Your task to perform on an android device: Do I have any events today? Image 0: 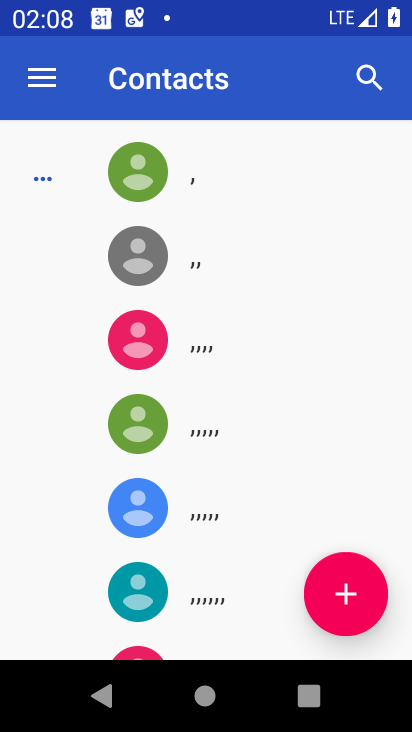
Step 0: press home button
Your task to perform on an android device: Do I have any events today? Image 1: 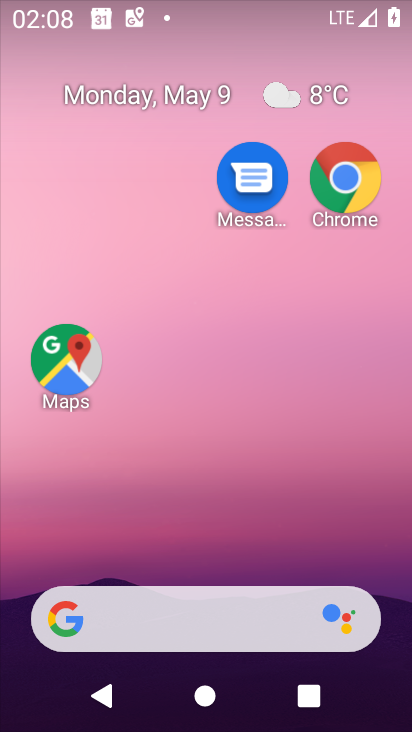
Step 1: drag from (173, 536) to (189, 42)
Your task to perform on an android device: Do I have any events today? Image 2: 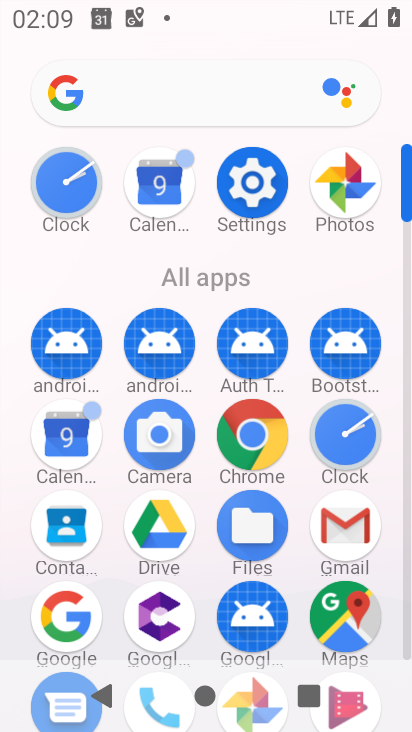
Step 2: click (61, 430)
Your task to perform on an android device: Do I have any events today? Image 3: 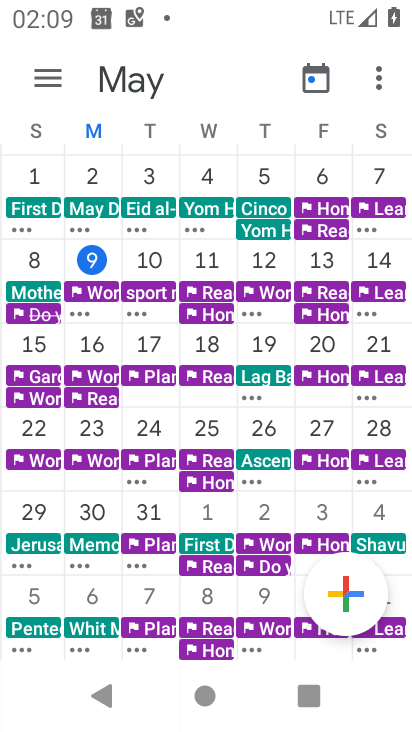
Step 3: task complete